Your task to perform on an android device: Go to sound settings Image 0: 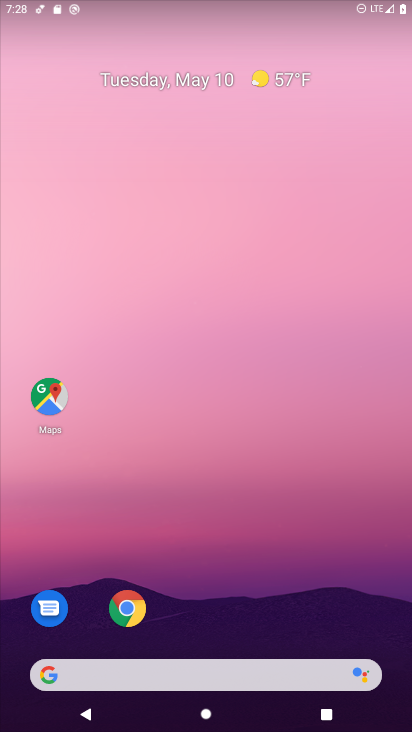
Step 0: drag from (397, 644) to (336, 94)
Your task to perform on an android device: Go to sound settings Image 1: 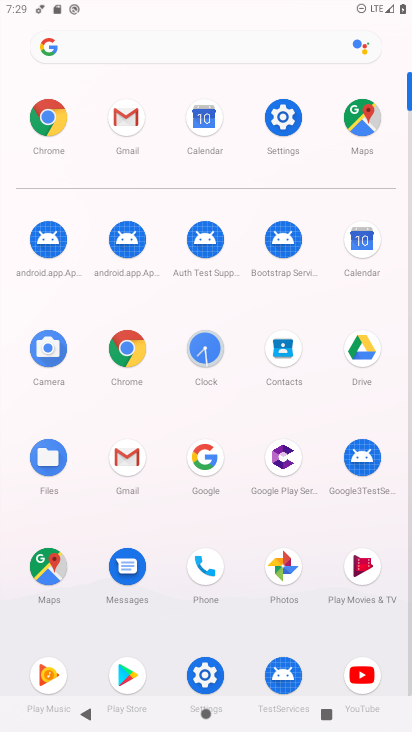
Step 1: click (274, 107)
Your task to perform on an android device: Go to sound settings Image 2: 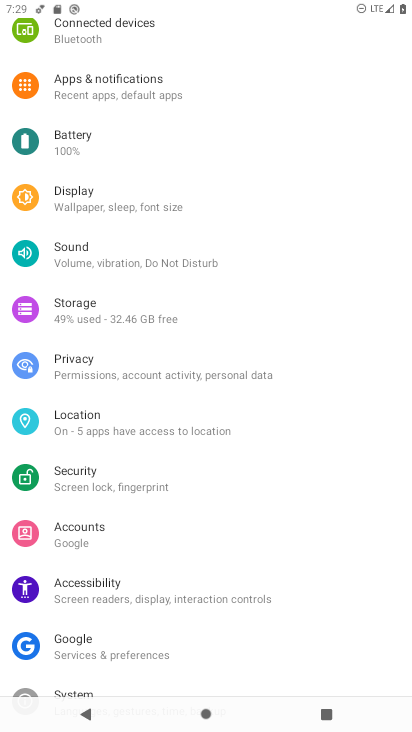
Step 2: click (83, 261)
Your task to perform on an android device: Go to sound settings Image 3: 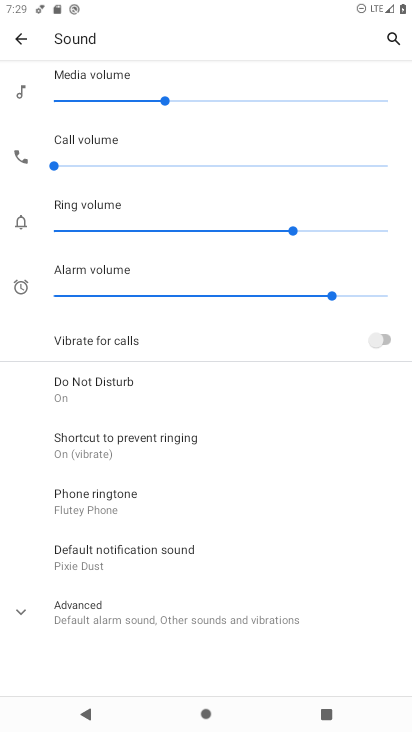
Step 3: task complete